Your task to perform on an android device: refresh tabs in the chrome app Image 0: 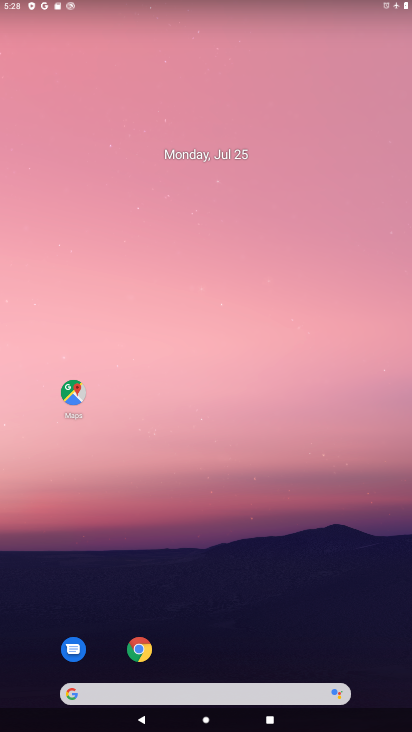
Step 0: drag from (264, 670) to (271, 122)
Your task to perform on an android device: refresh tabs in the chrome app Image 1: 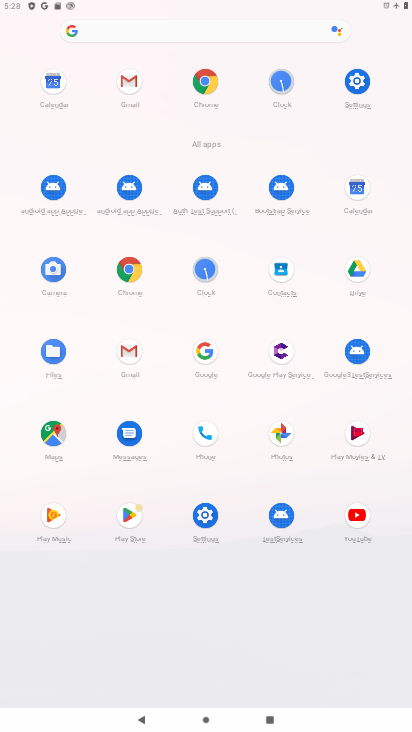
Step 1: click (137, 269)
Your task to perform on an android device: refresh tabs in the chrome app Image 2: 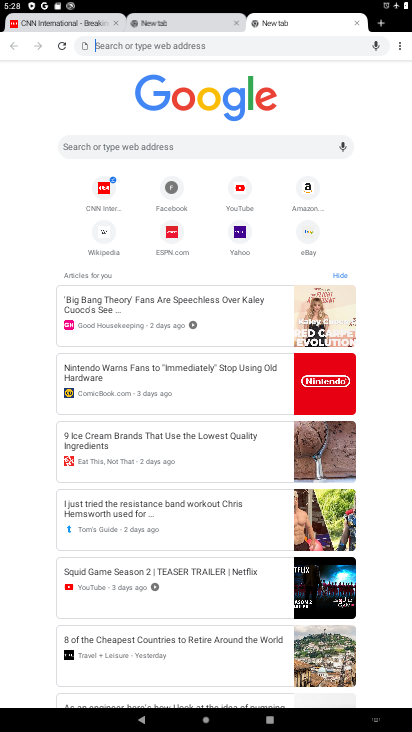
Step 2: drag from (404, 40) to (53, 44)
Your task to perform on an android device: refresh tabs in the chrome app Image 3: 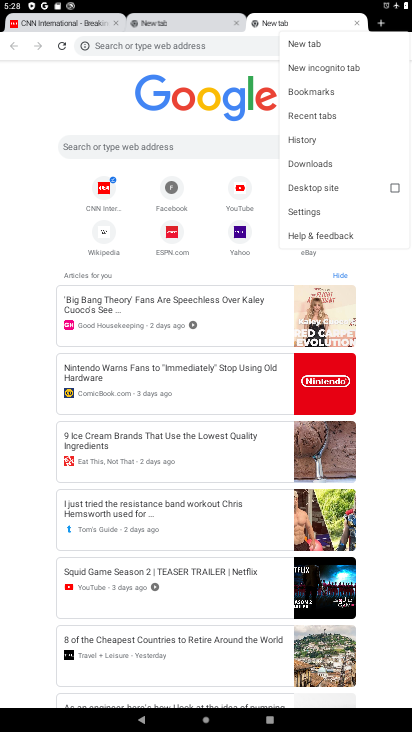
Step 3: click (58, 44)
Your task to perform on an android device: refresh tabs in the chrome app Image 4: 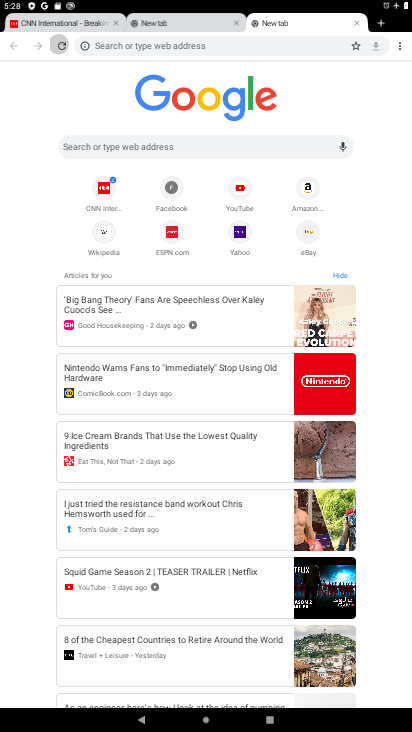
Step 4: click (58, 44)
Your task to perform on an android device: refresh tabs in the chrome app Image 5: 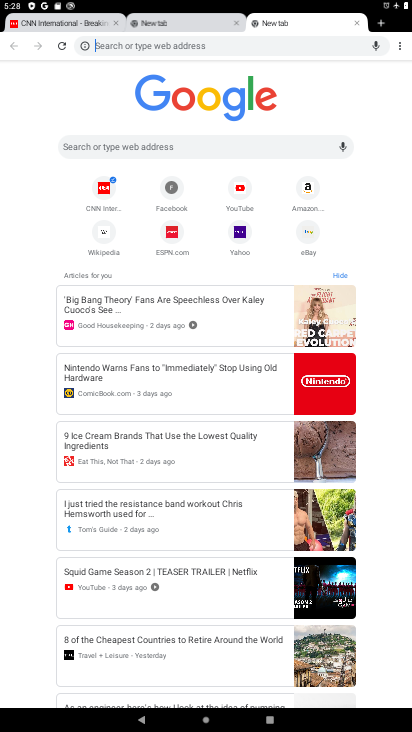
Step 5: task complete